Your task to perform on an android device: Search for pizza restaurants on Maps Image 0: 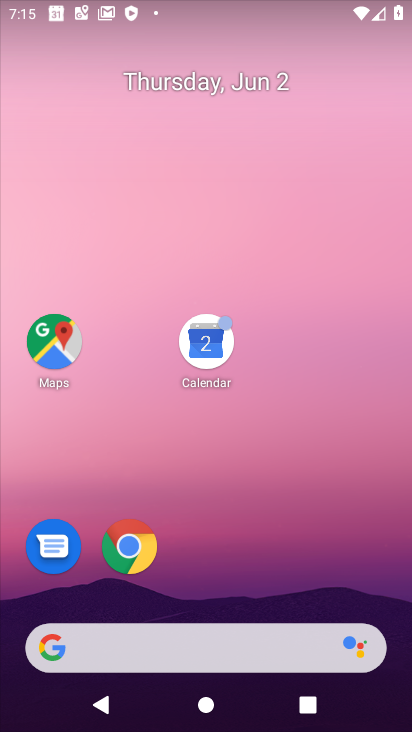
Step 0: press home button
Your task to perform on an android device: Search for pizza restaurants on Maps Image 1: 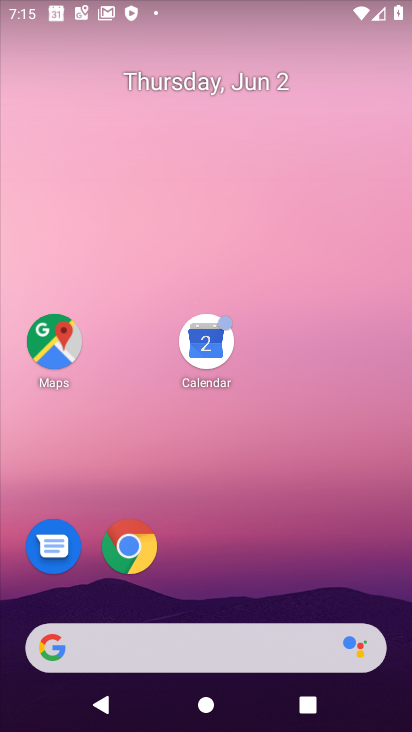
Step 1: click (51, 358)
Your task to perform on an android device: Search for pizza restaurants on Maps Image 2: 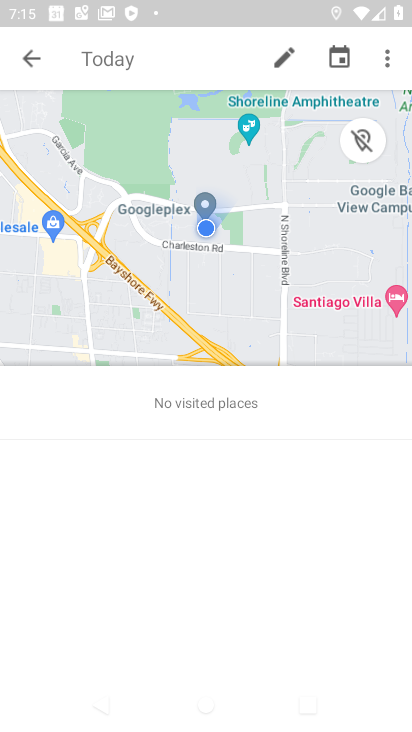
Step 2: click (27, 62)
Your task to perform on an android device: Search for pizza restaurants on Maps Image 3: 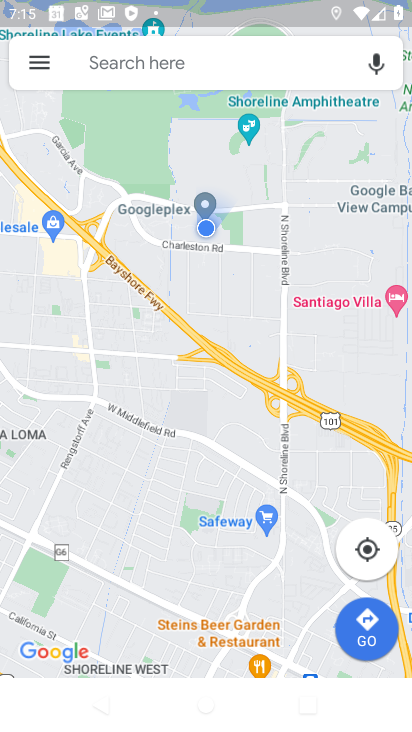
Step 3: click (173, 57)
Your task to perform on an android device: Search for pizza restaurants on Maps Image 4: 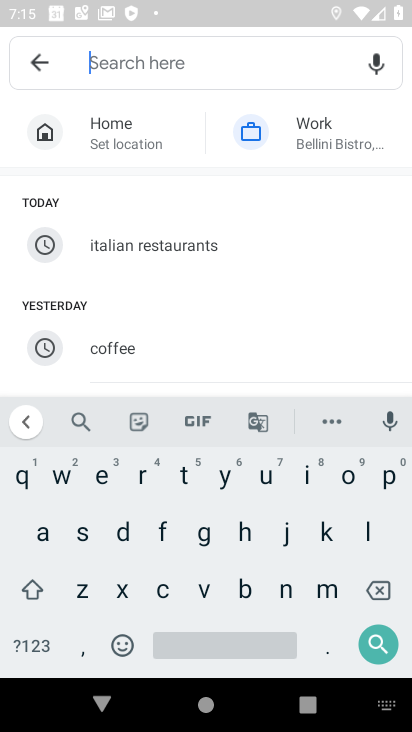
Step 4: click (391, 484)
Your task to perform on an android device: Search for pizza restaurants on Maps Image 5: 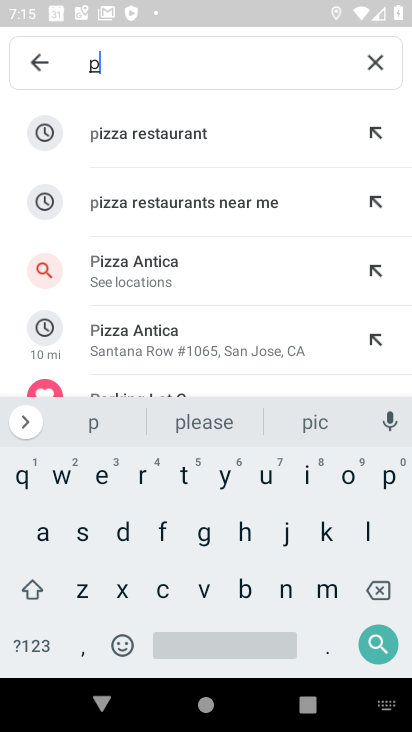
Step 5: click (197, 139)
Your task to perform on an android device: Search for pizza restaurants on Maps Image 6: 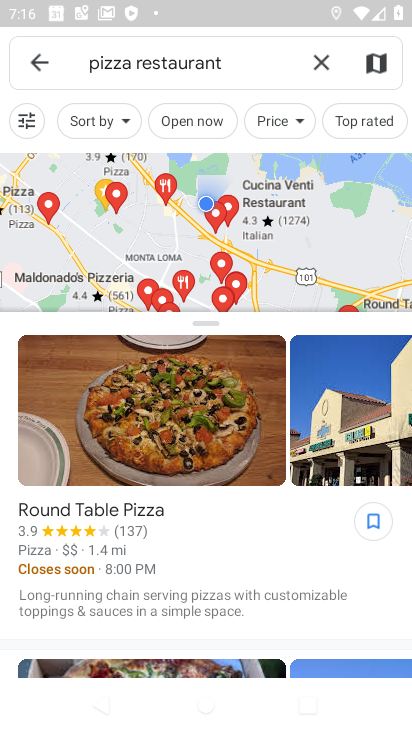
Step 6: task complete